Your task to perform on an android device: delete the emails in spam in the gmail app Image 0: 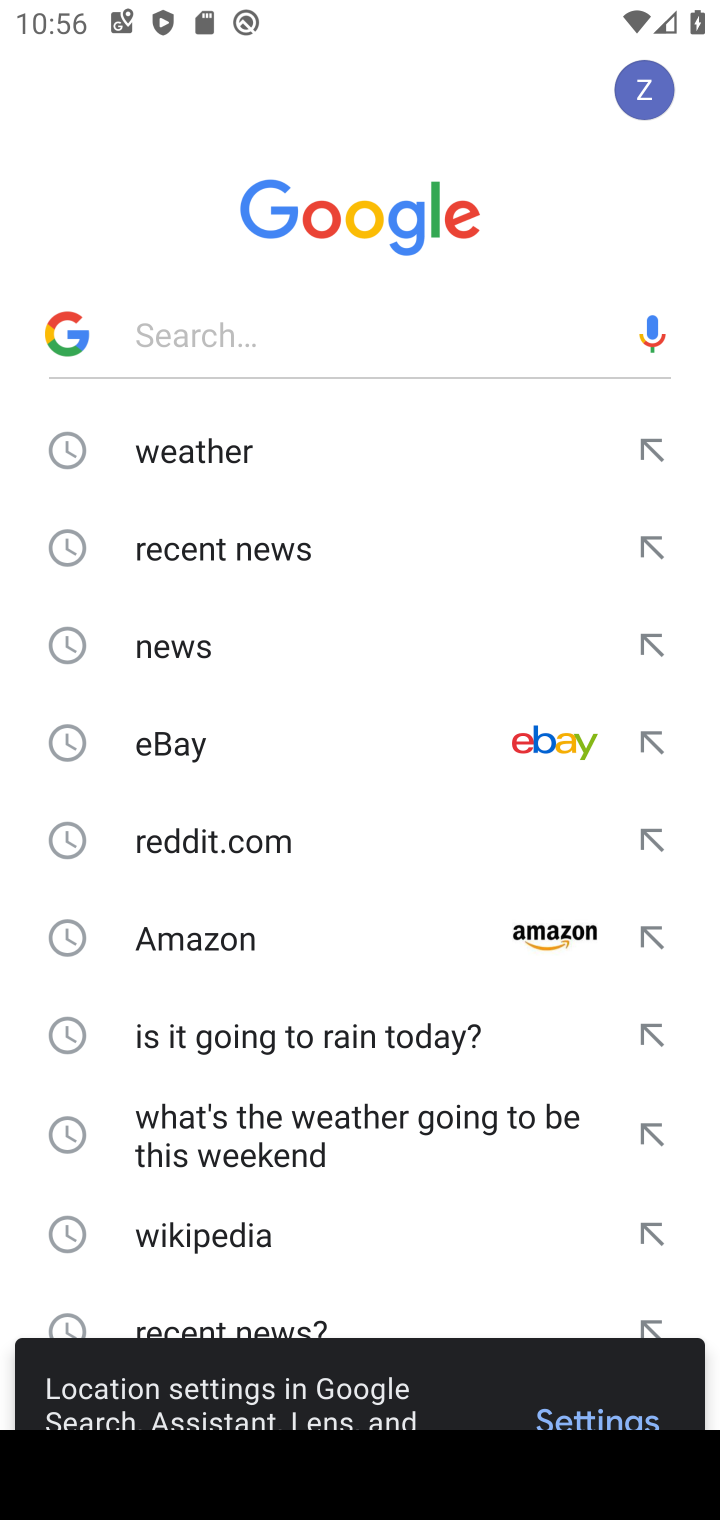
Step 0: press home button
Your task to perform on an android device: delete the emails in spam in the gmail app Image 1: 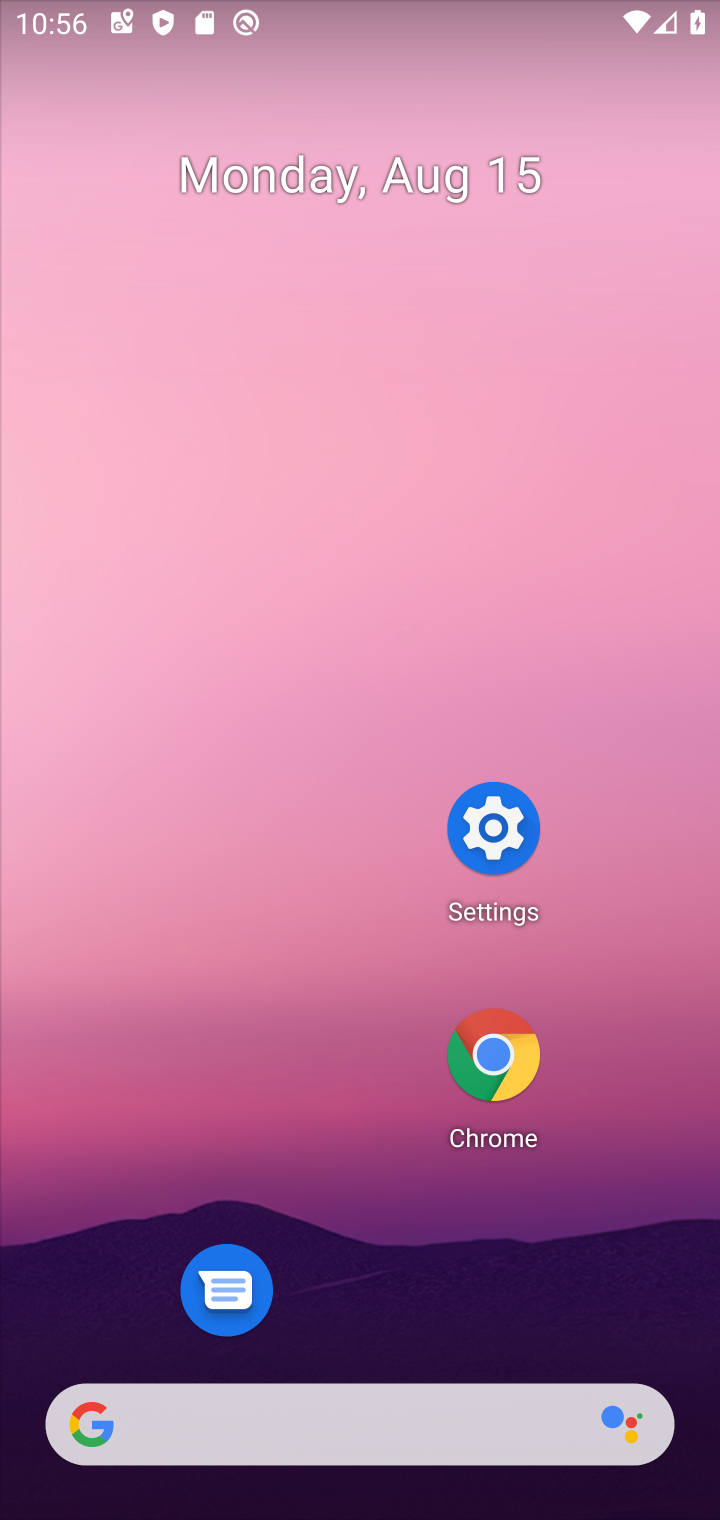
Step 1: drag from (395, 1421) to (592, 281)
Your task to perform on an android device: delete the emails in spam in the gmail app Image 2: 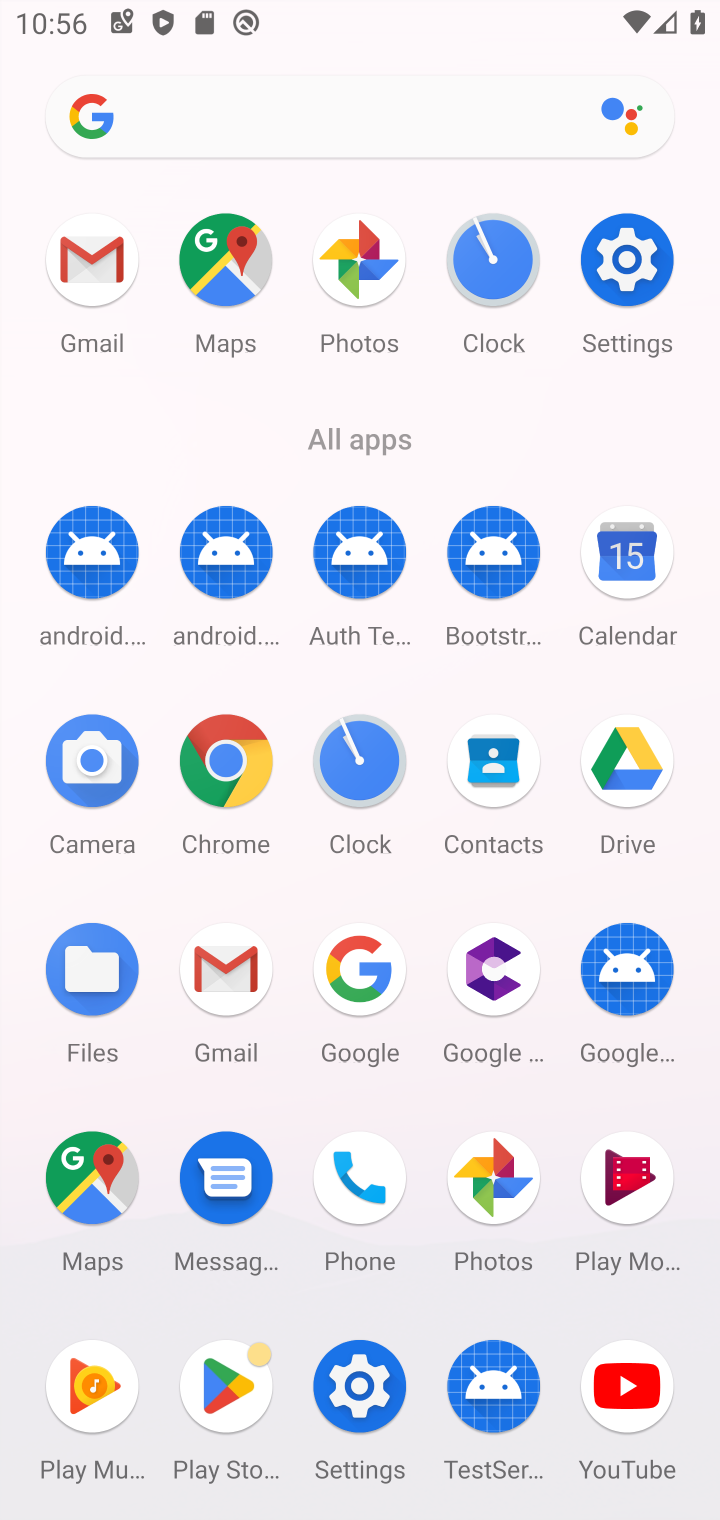
Step 2: click (93, 270)
Your task to perform on an android device: delete the emails in spam in the gmail app Image 3: 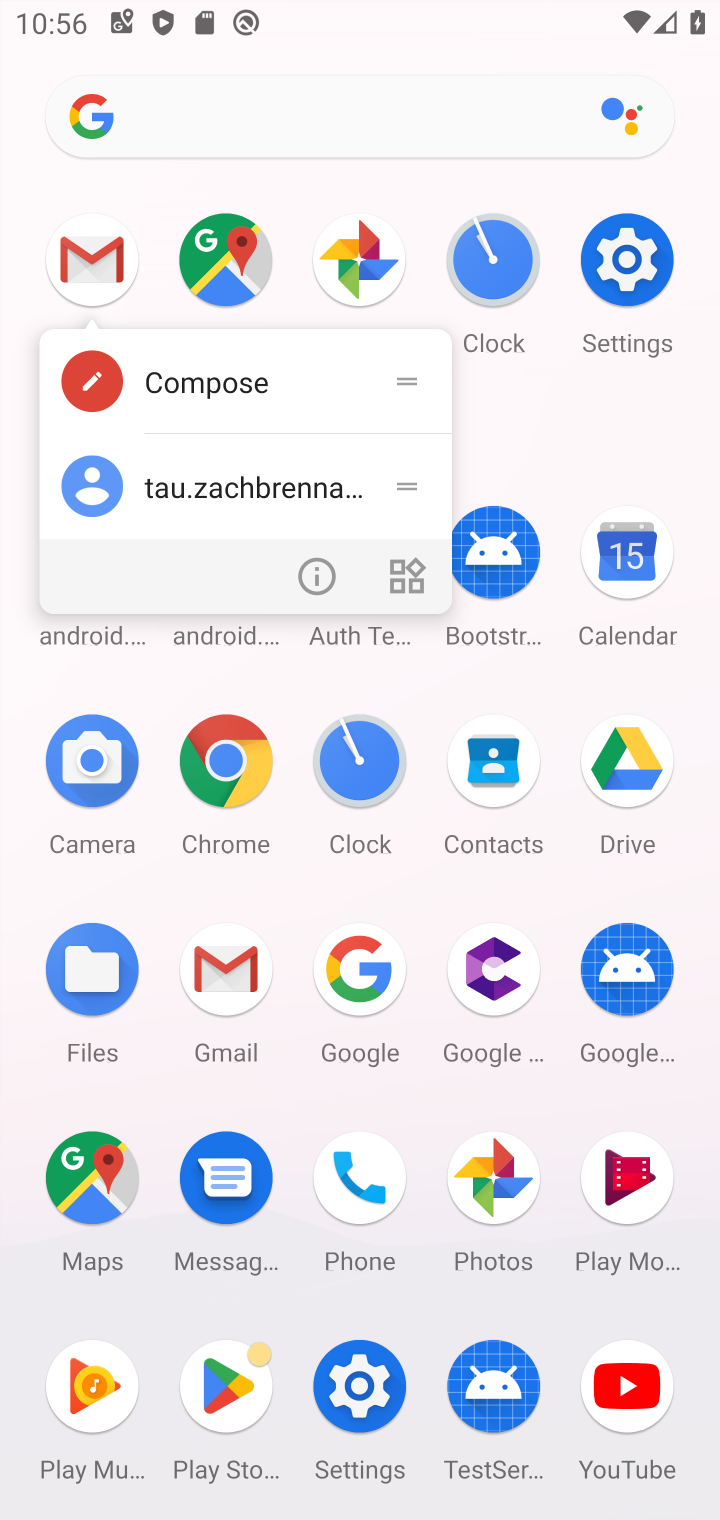
Step 3: click (93, 272)
Your task to perform on an android device: delete the emails in spam in the gmail app Image 4: 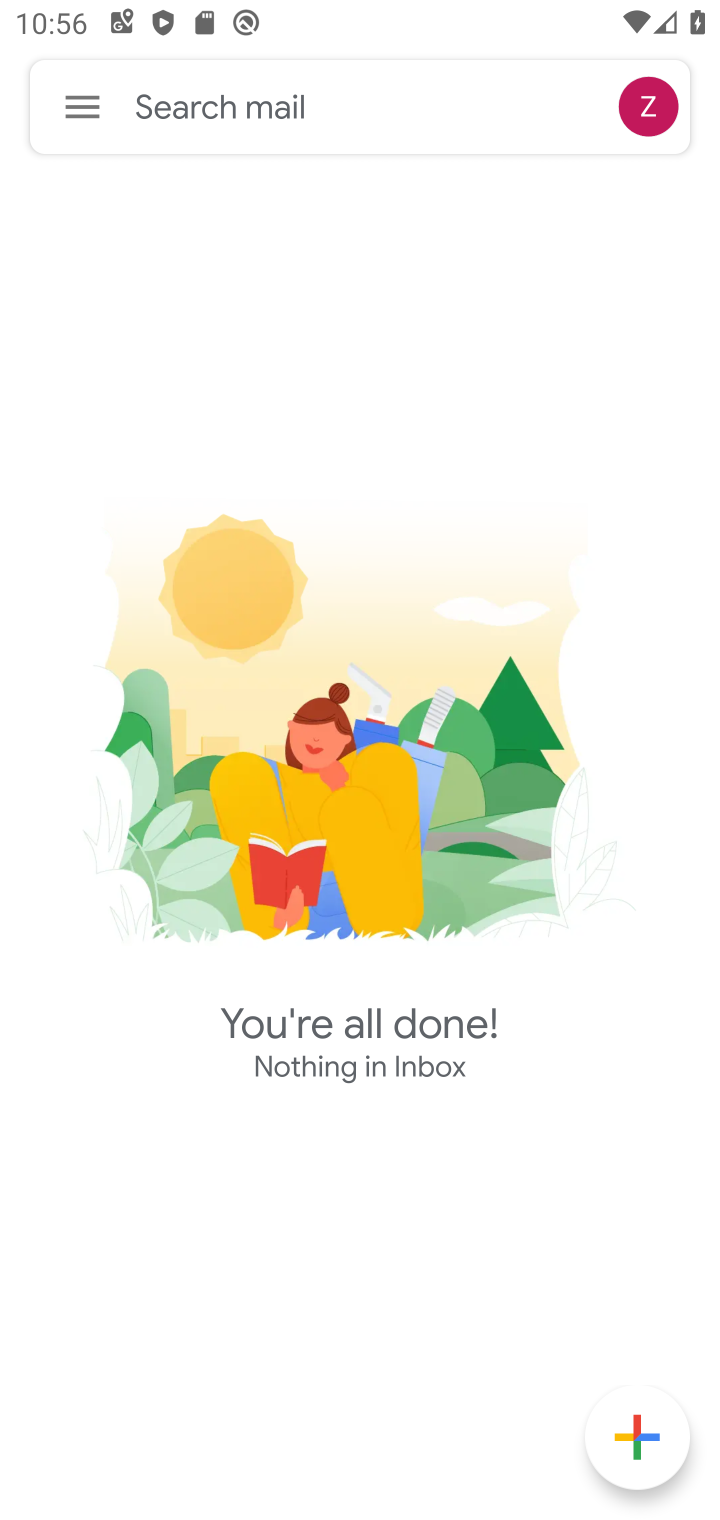
Step 4: click (80, 118)
Your task to perform on an android device: delete the emails in spam in the gmail app Image 5: 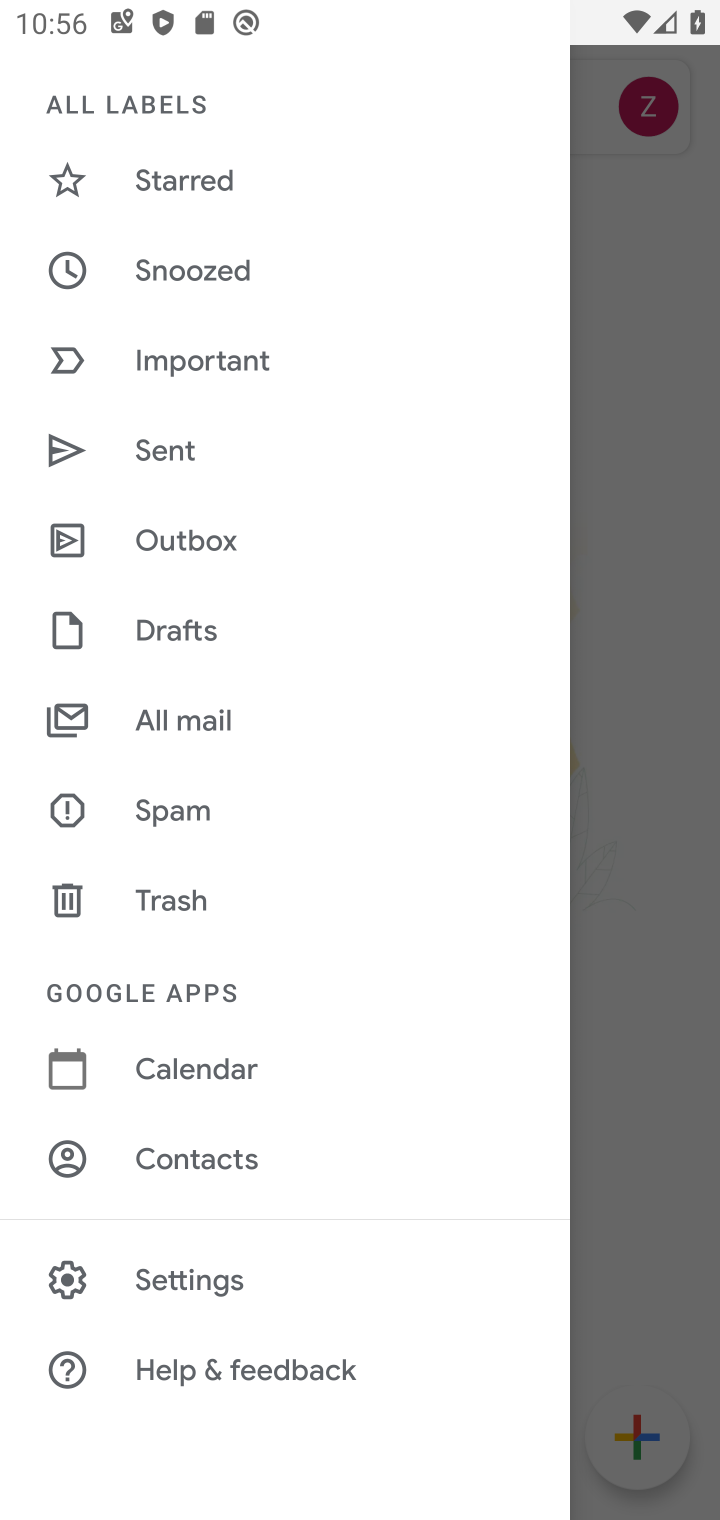
Step 5: click (188, 1284)
Your task to perform on an android device: delete the emails in spam in the gmail app Image 6: 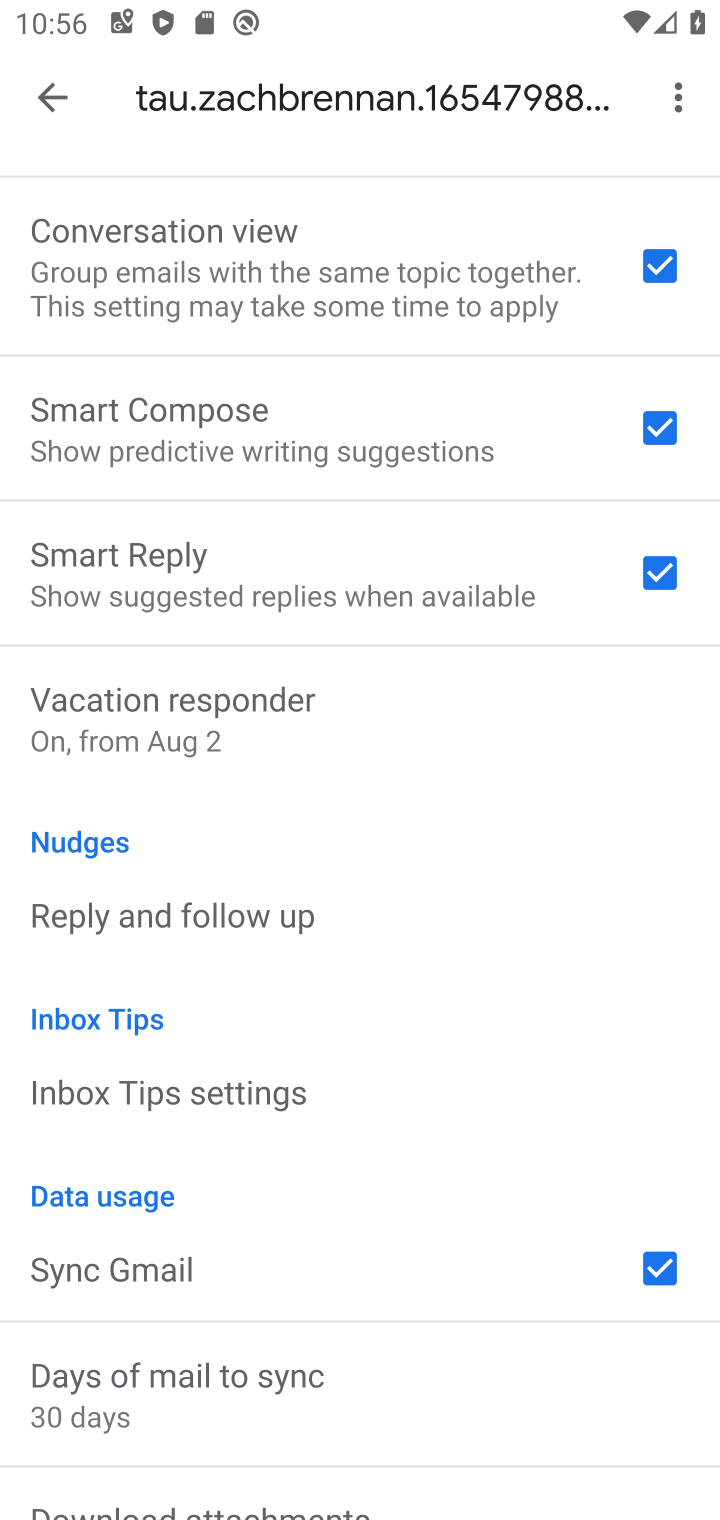
Step 6: click (50, 84)
Your task to perform on an android device: delete the emails in spam in the gmail app Image 7: 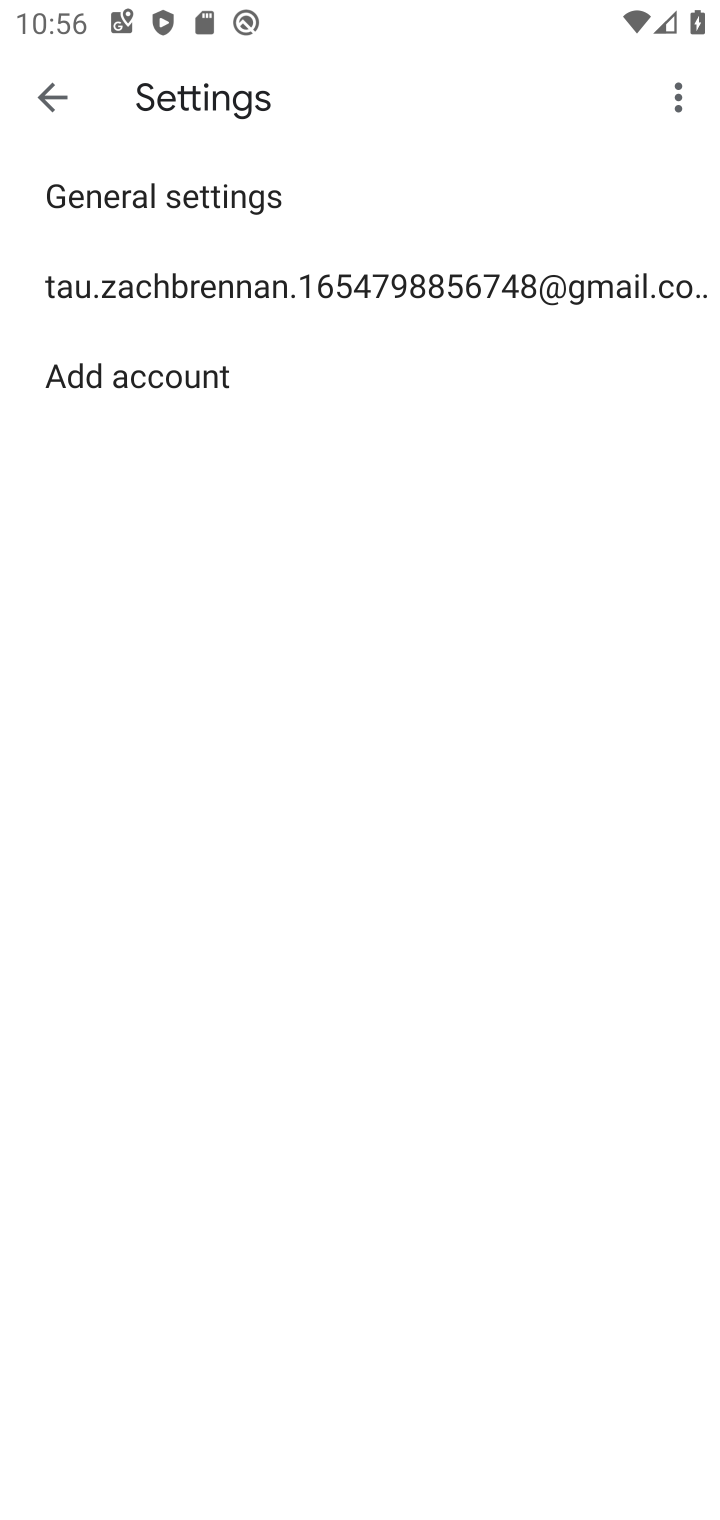
Step 7: press back button
Your task to perform on an android device: delete the emails in spam in the gmail app Image 8: 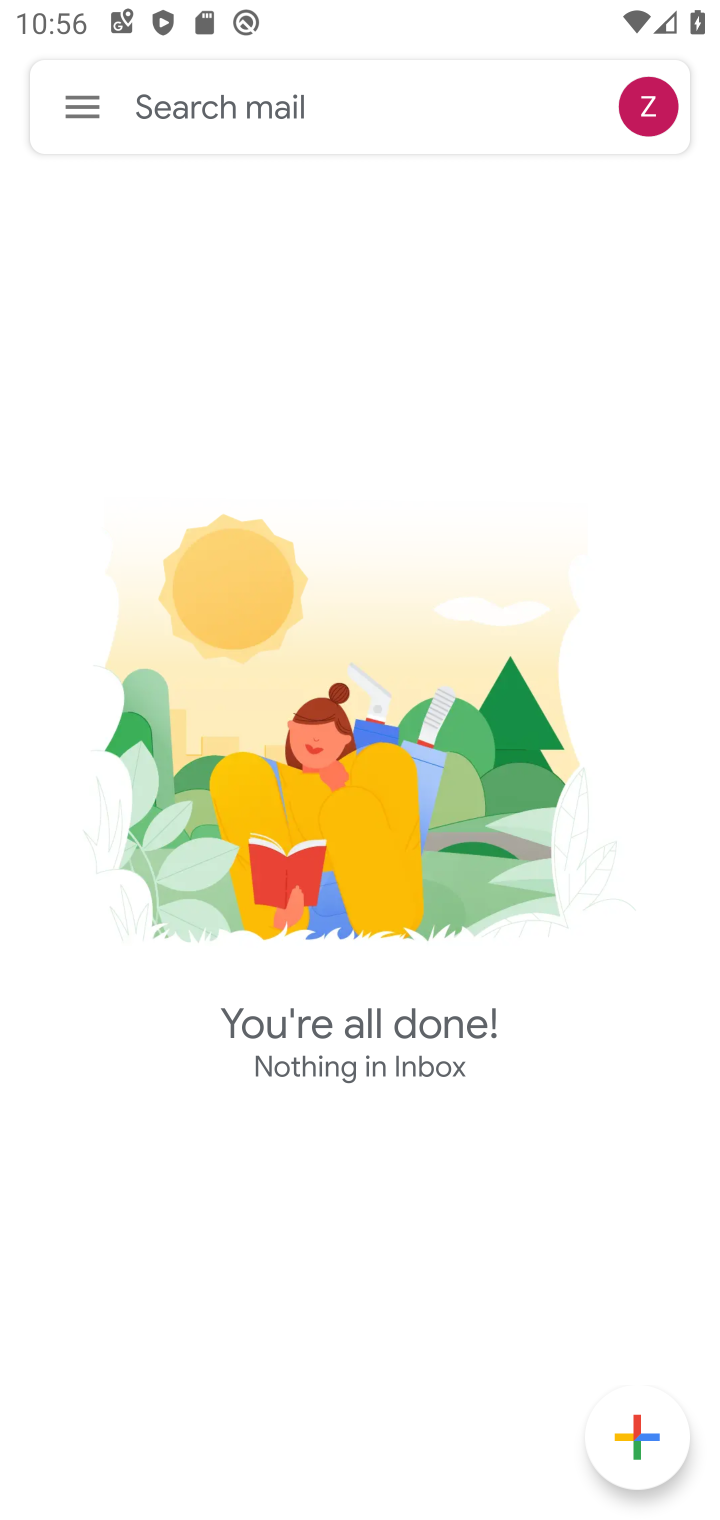
Step 8: click (93, 105)
Your task to perform on an android device: delete the emails in spam in the gmail app Image 9: 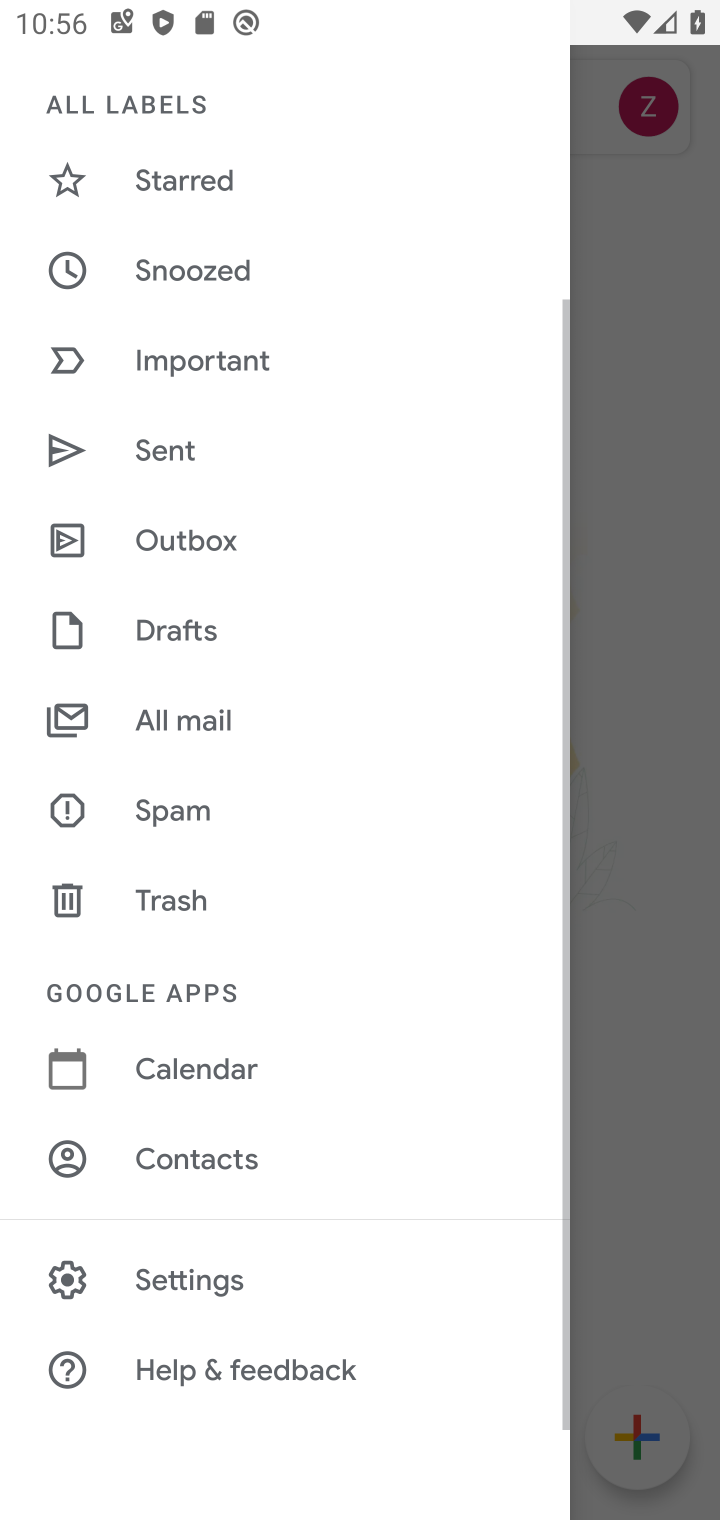
Step 9: click (194, 815)
Your task to perform on an android device: delete the emails in spam in the gmail app Image 10: 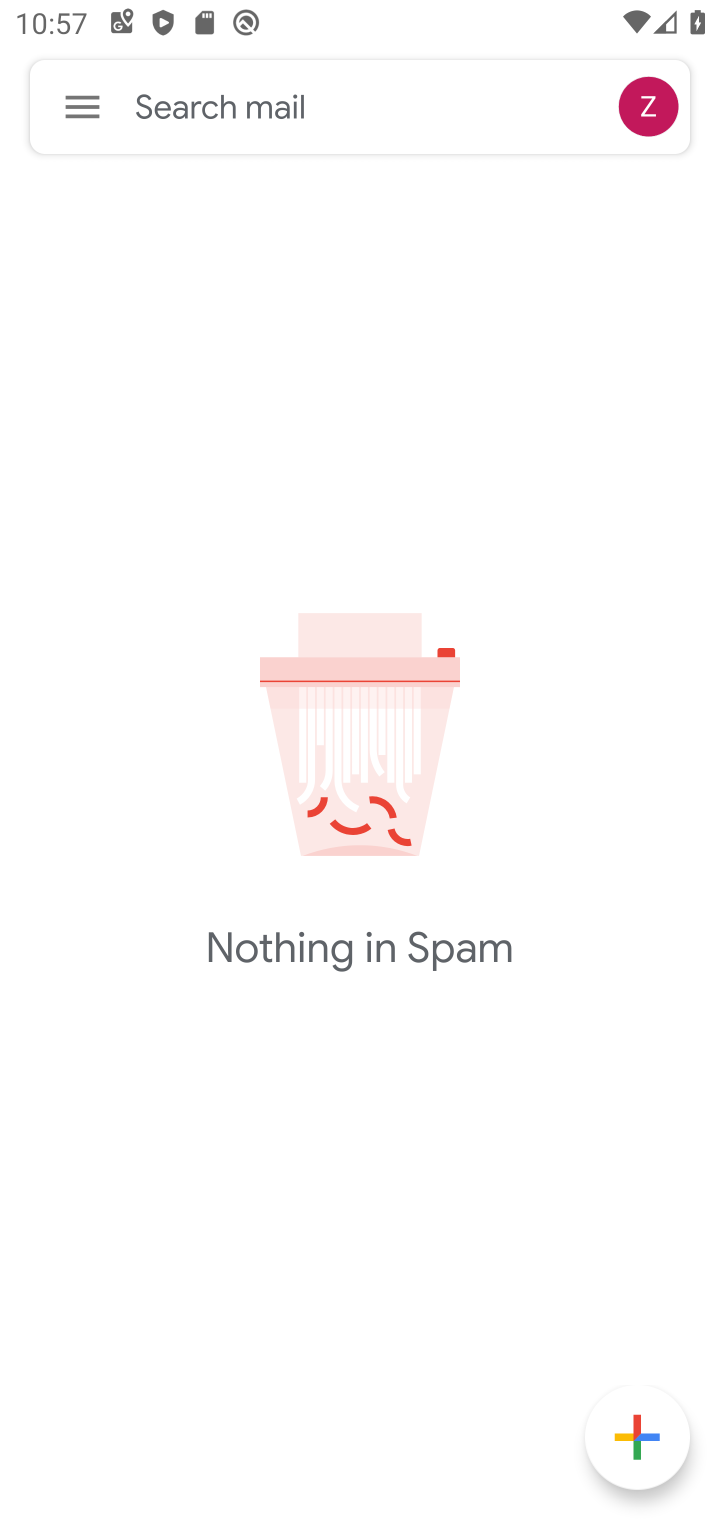
Step 10: task complete